Your task to perform on an android device: see sites visited before in the chrome app Image 0: 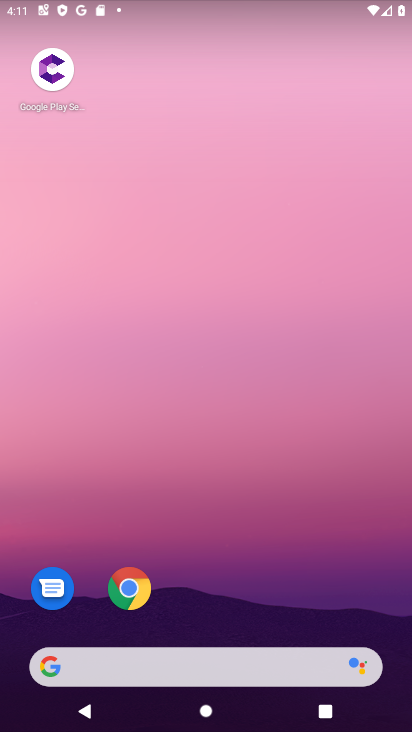
Step 0: click (117, 593)
Your task to perform on an android device: see sites visited before in the chrome app Image 1: 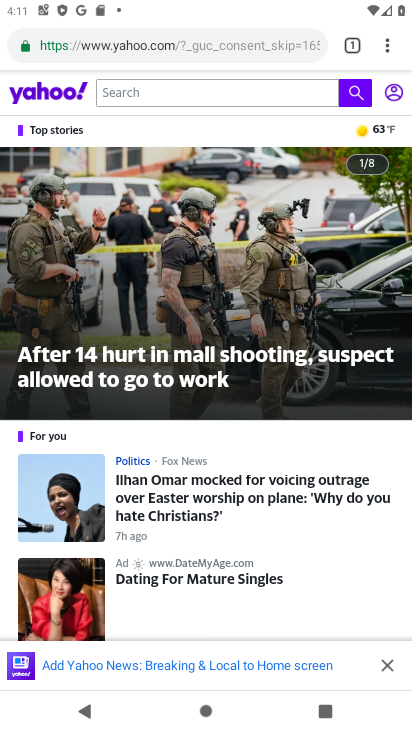
Step 1: drag from (385, 46) to (252, 218)
Your task to perform on an android device: see sites visited before in the chrome app Image 2: 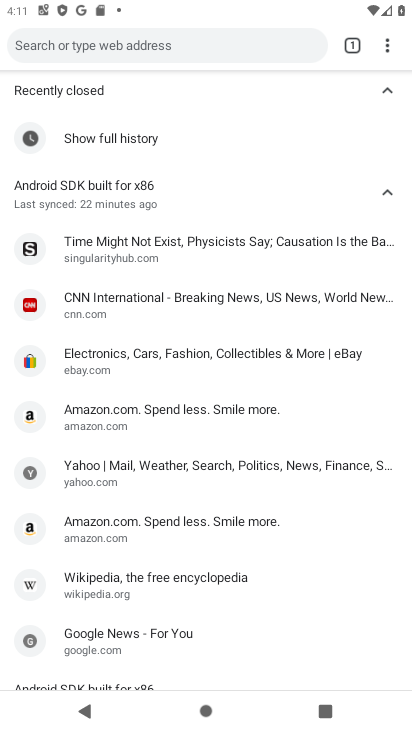
Step 2: click (106, 301)
Your task to perform on an android device: see sites visited before in the chrome app Image 3: 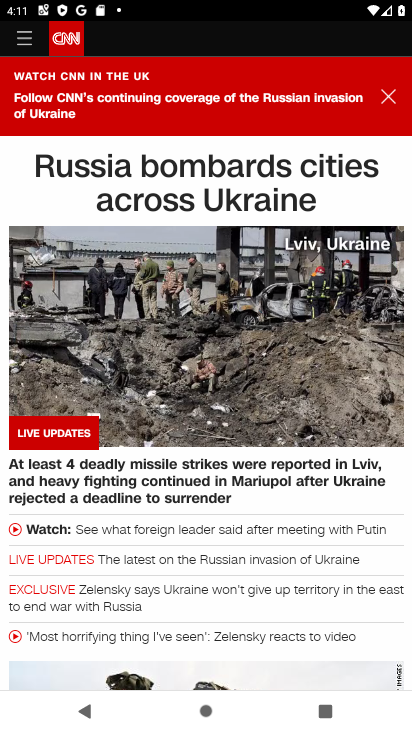
Step 3: task complete